Your task to perform on an android device: open a new tab in the chrome app Image 0: 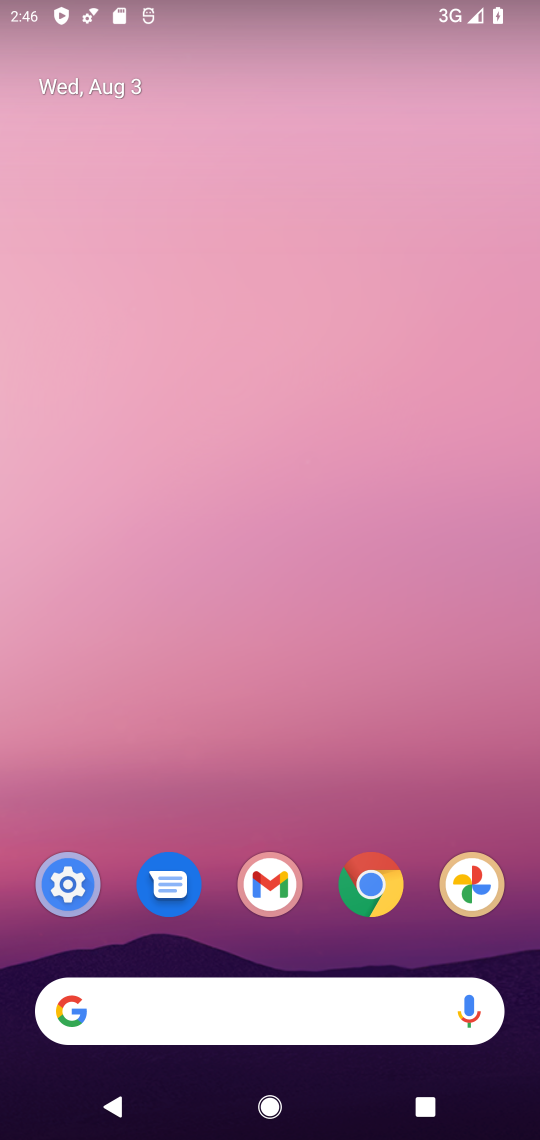
Step 0: click (374, 897)
Your task to perform on an android device: open a new tab in the chrome app Image 1: 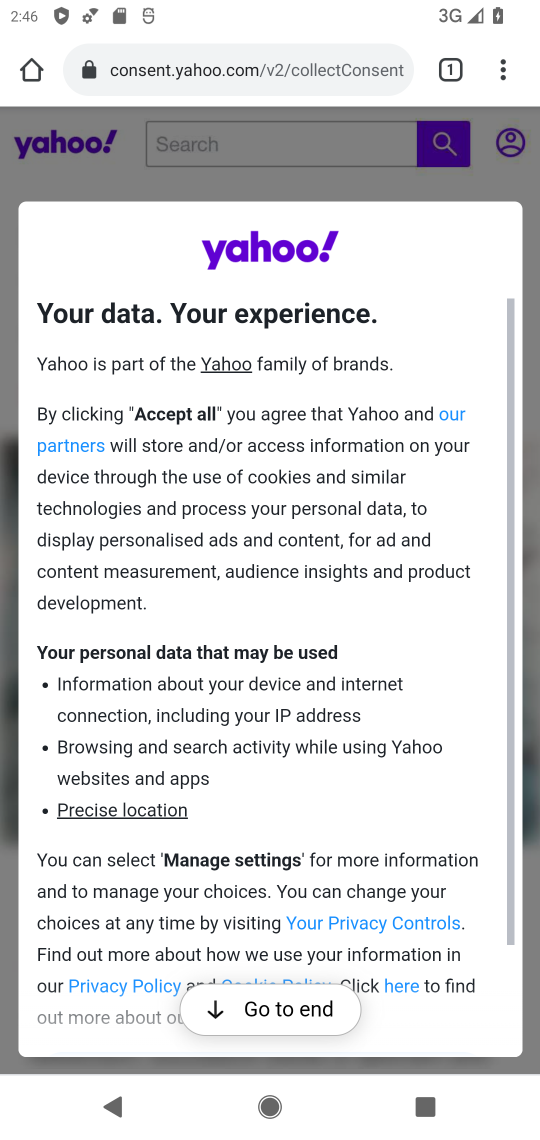
Step 1: click (465, 72)
Your task to perform on an android device: open a new tab in the chrome app Image 2: 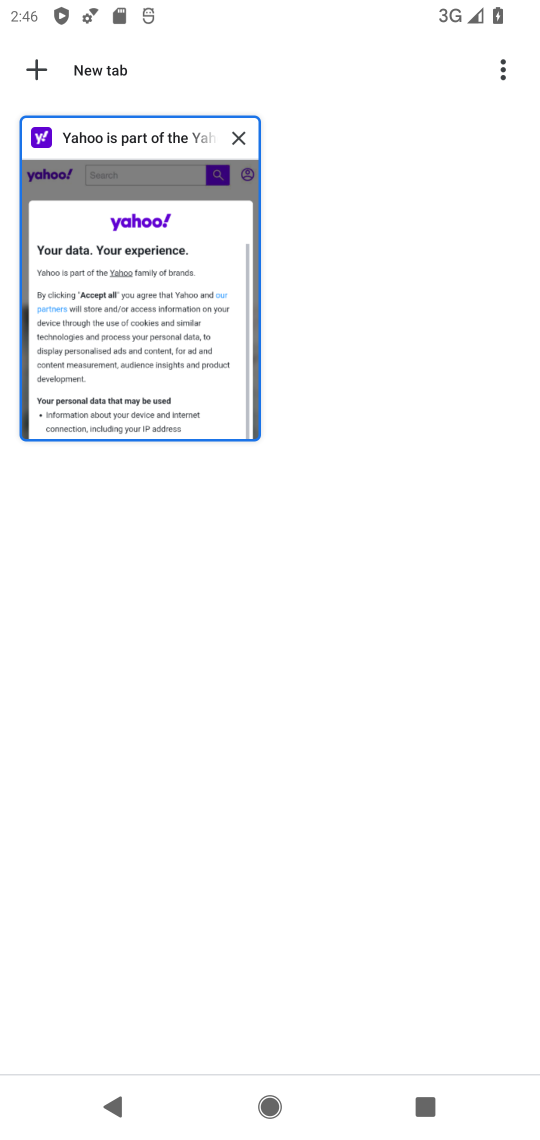
Step 2: click (28, 76)
Your task to perform on an android device: open a new tab in the chrome app Image 3: 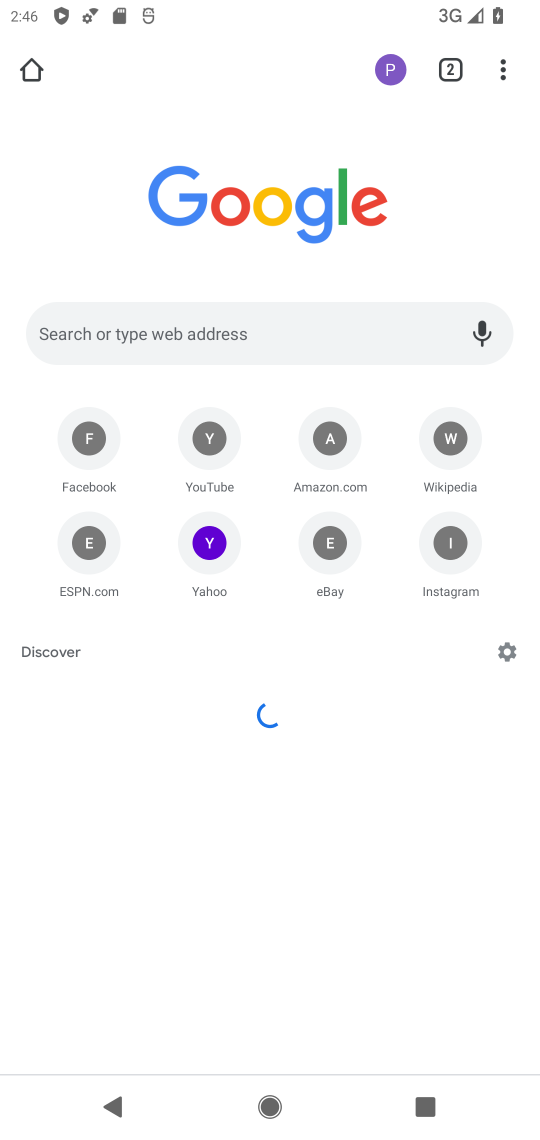
Step 3: task complete